Your task to perform on an android device: set the stopwatch Image 0: 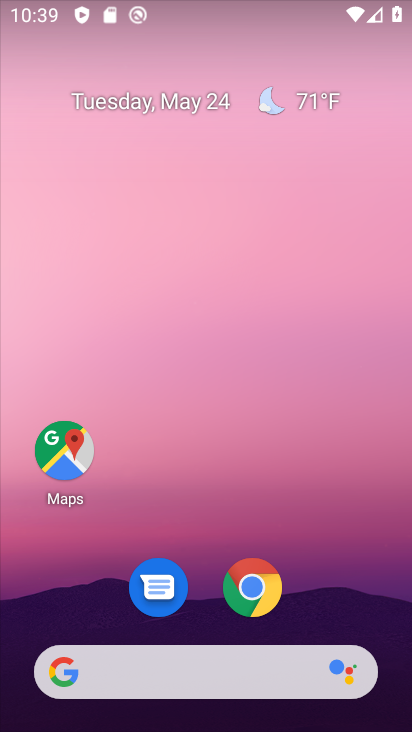
Step 0: drag from (374, 711) to (319, 435)
Your task to perform on an android device: set the stopwatch Image 1: 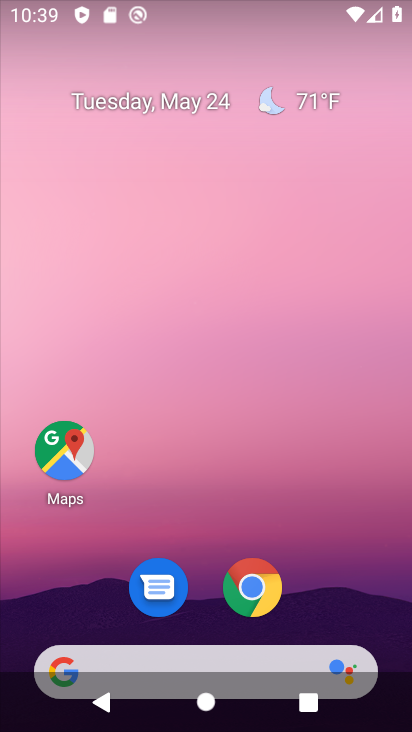
Step 1: drag from (324, 640) to (171, 107)
Your task to perform on an android device: set the stopwatch Image 2: 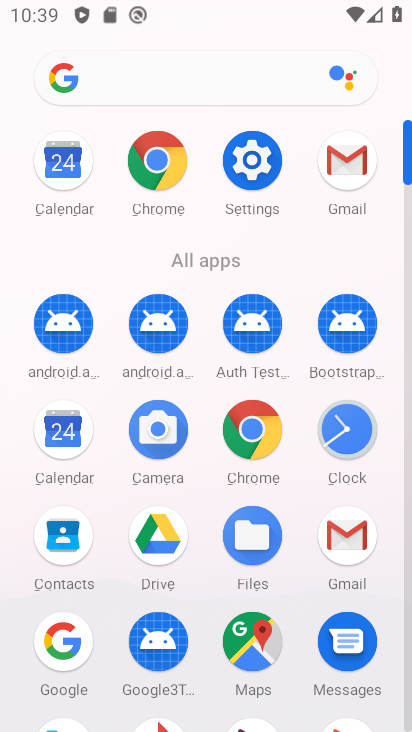
Step 2: click (351, 432)
Your task to perform on an android device: set the stopwatch Image 3: 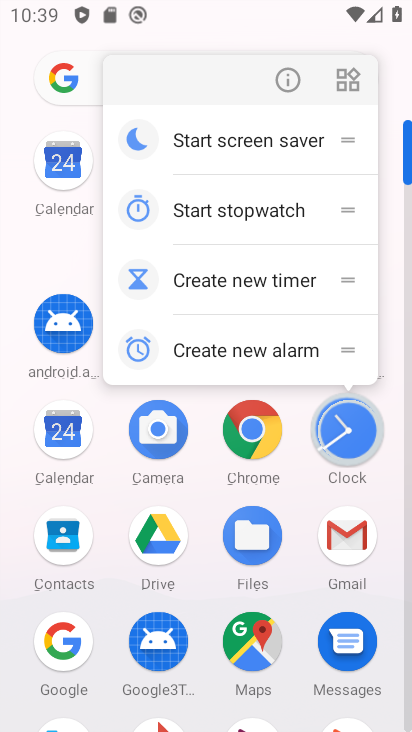
Step 3: click (351, 432)
Your task to perform on an android device: set the stopwatch Image 4: 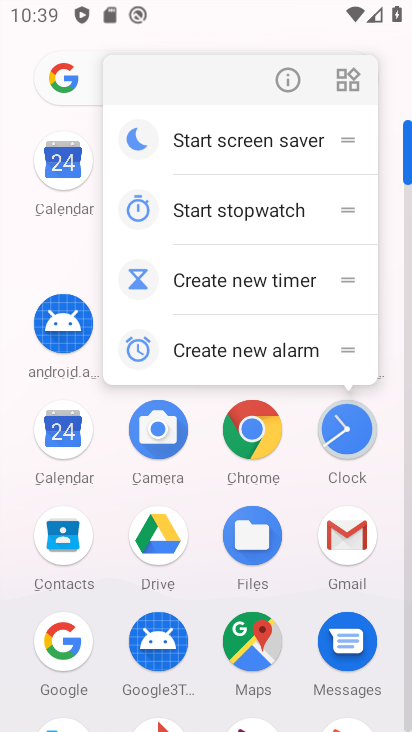
Step 4: click (351, 432)
Your task to perform on an android device: set the stopwatch Image 5: 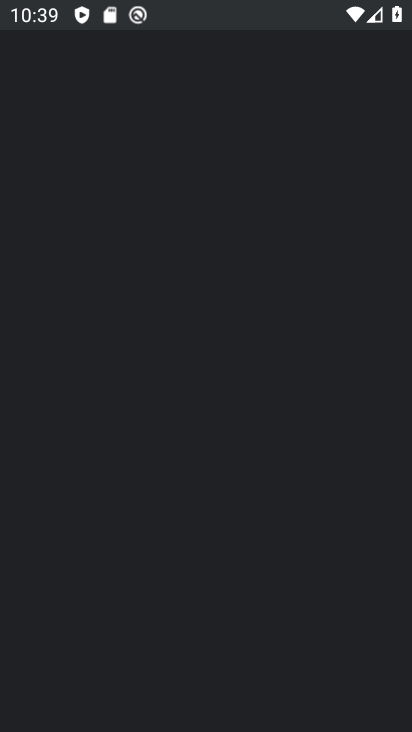
Step 5: click (352, 432)
Your task to perform on an android device: set the stopwatch Image 6: 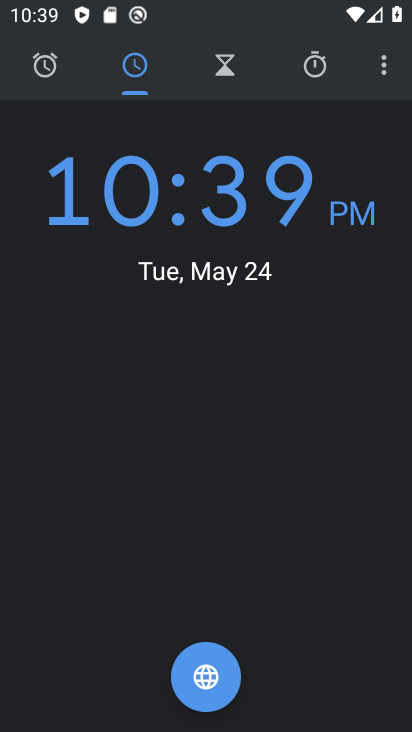
Step 6: click (315, 67)
Your task to perform on an android device: set the stopwatch Image 7: 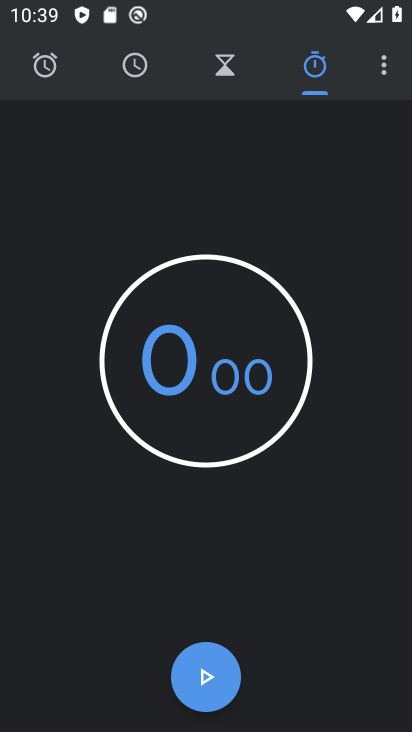
Step 7: click (207, 686)
Your task to perform on an android device: set the stopwatch Image 8: 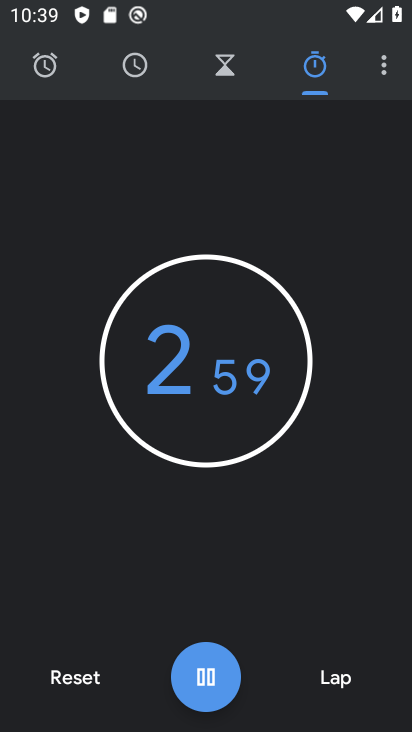
Step 8: click (206, 680)
Your task to perform on an android device: set the stopwatch Image 9: 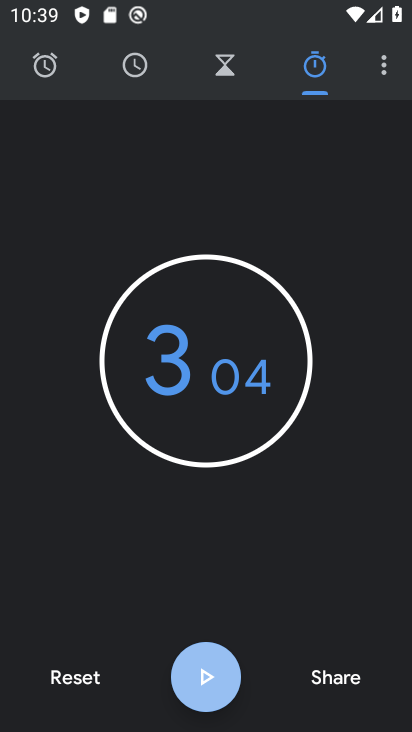
Step 9: click (206, 680)
Your task to perform on an android device: set the stopwatch Image 10: 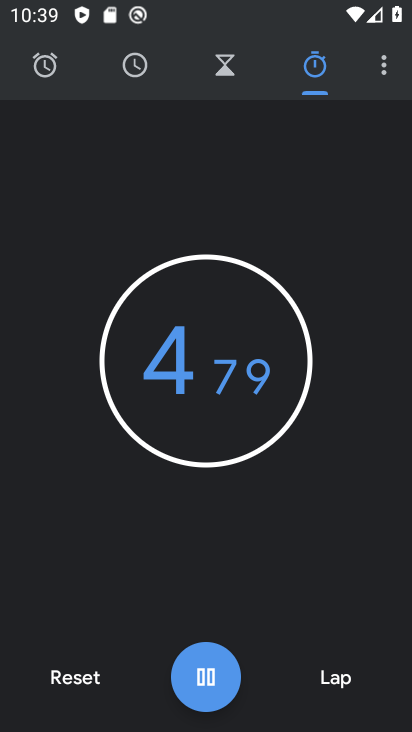
Step 10: click (204, 678)
Your task to perform on an android device: set the stopwatch Image 11: 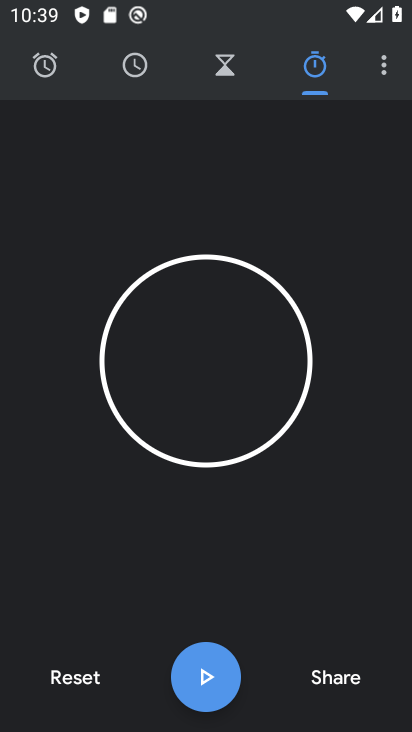
Step 11: click (204, 678)
Your task to perform on an android device: set the stopwatch Image 12: 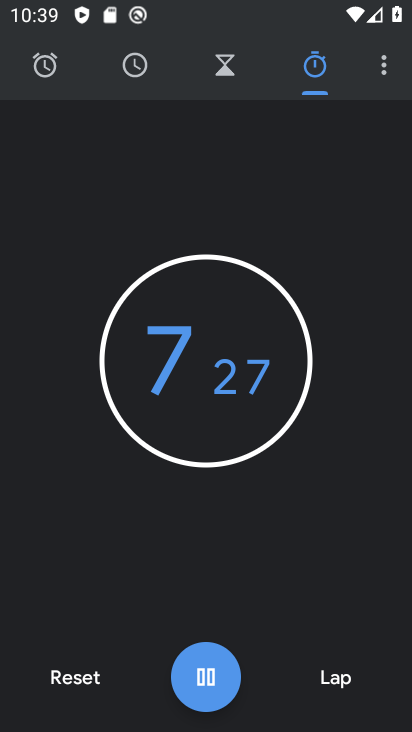
Step 12: click (206, 673)
Your task to perform on an android device: set the stopwatch Image 13: 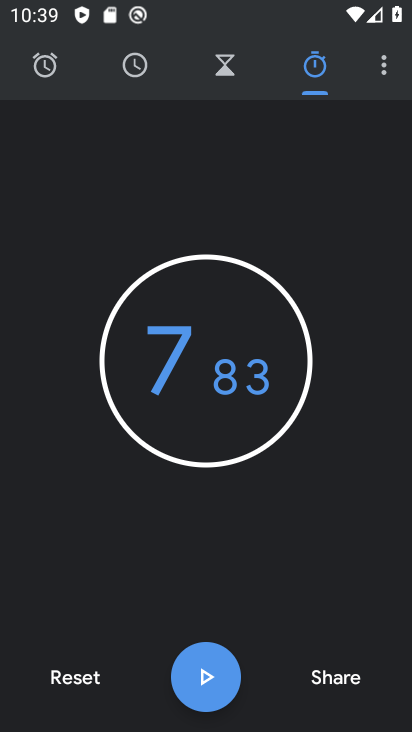
Step 13: task complete